Your task to perform on an android device: Open calendar and show me the third week of next month Image 0: 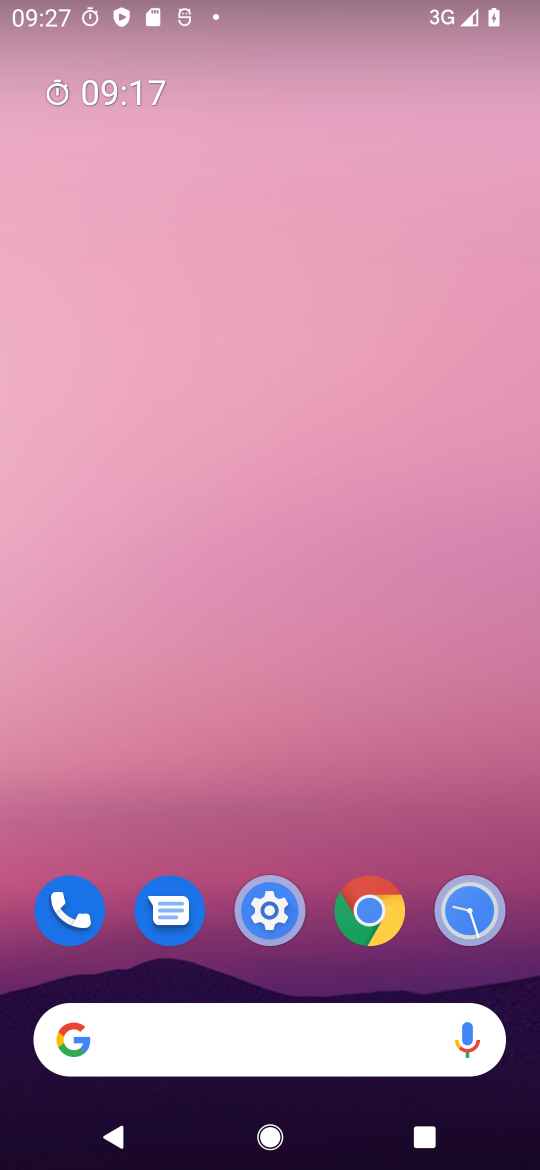
Step 0: drag from (289, 1056) to (465, 45)
Your task to perform on an android device: Open calendar and show me the third week of next month Image 1: 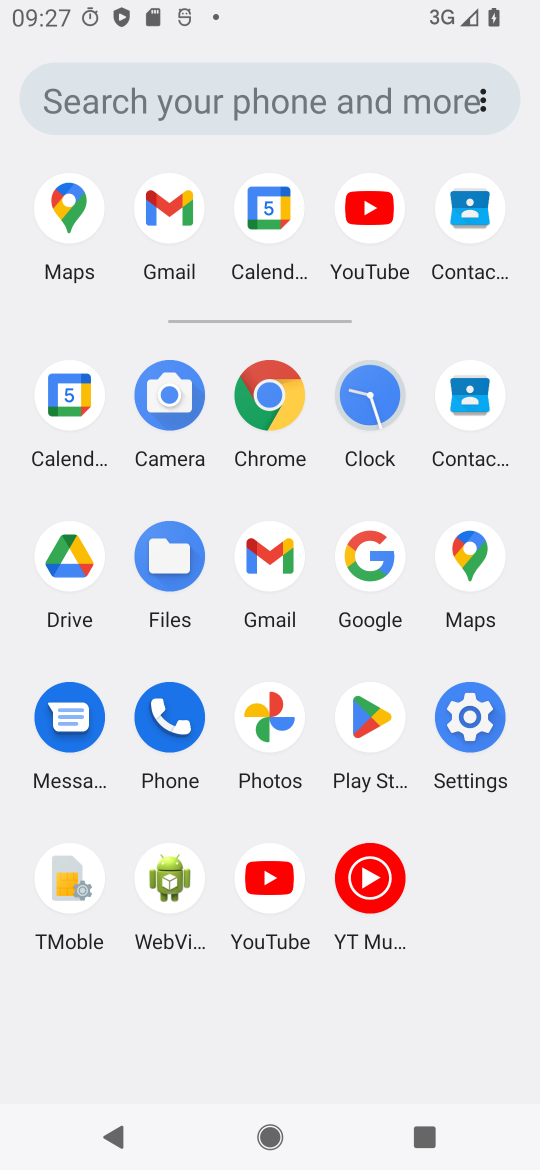
Step 1: click (64, 397)
Your task to perform on an android device: Open calendar and show me the third week of next month Image 2: 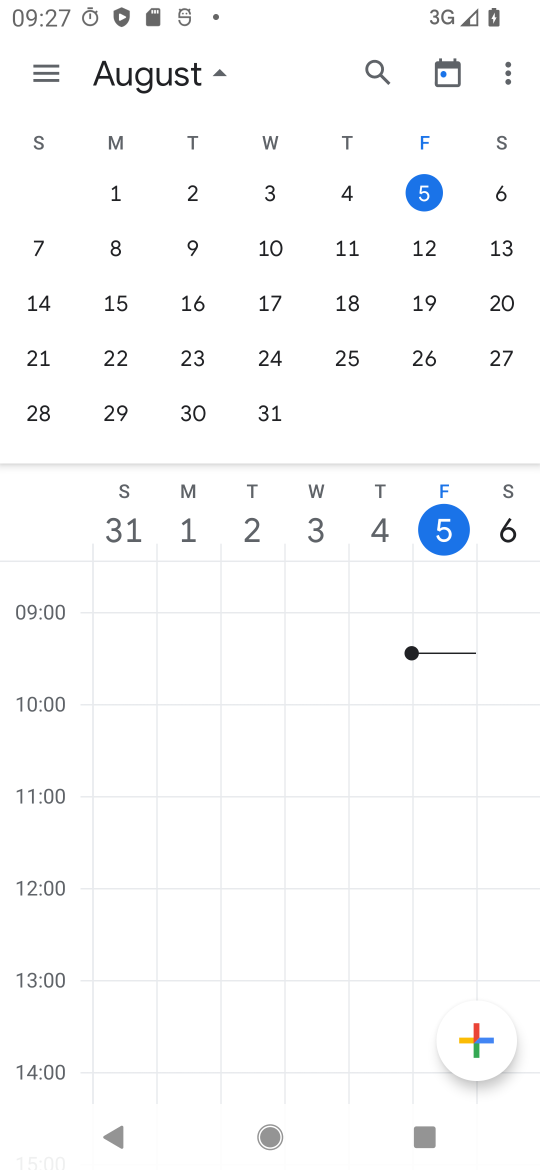
Step 2: drag from (504, 284) to (3, 278)
Your task to perform on an android device: Open calendar and show me the third week of next month Image 3: 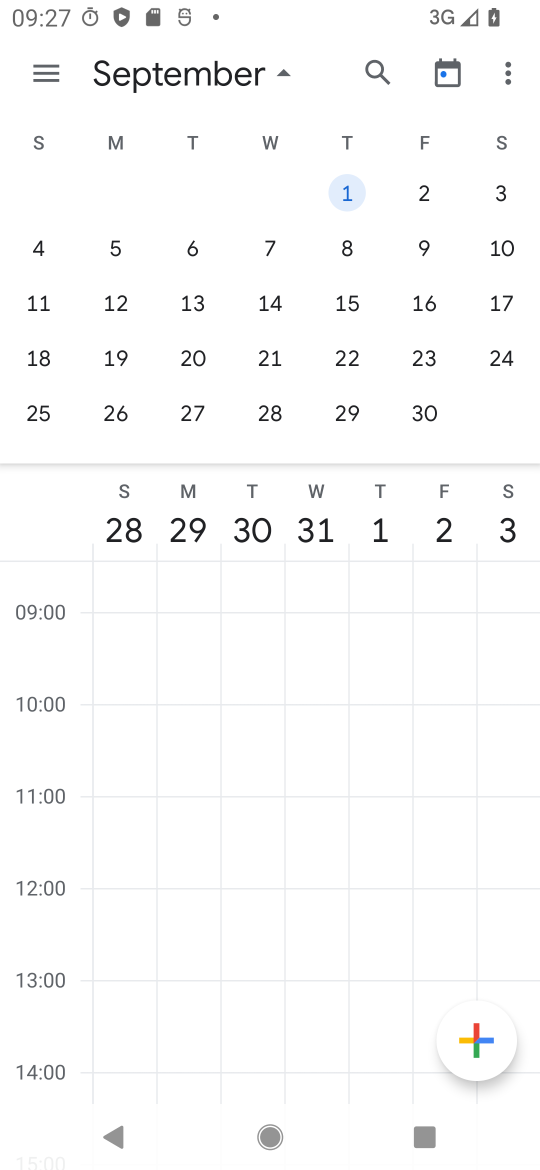
Step 3: click (268, 307)
Your task to perform on an android device: Open calendar and show me the third week of next month Image 4: 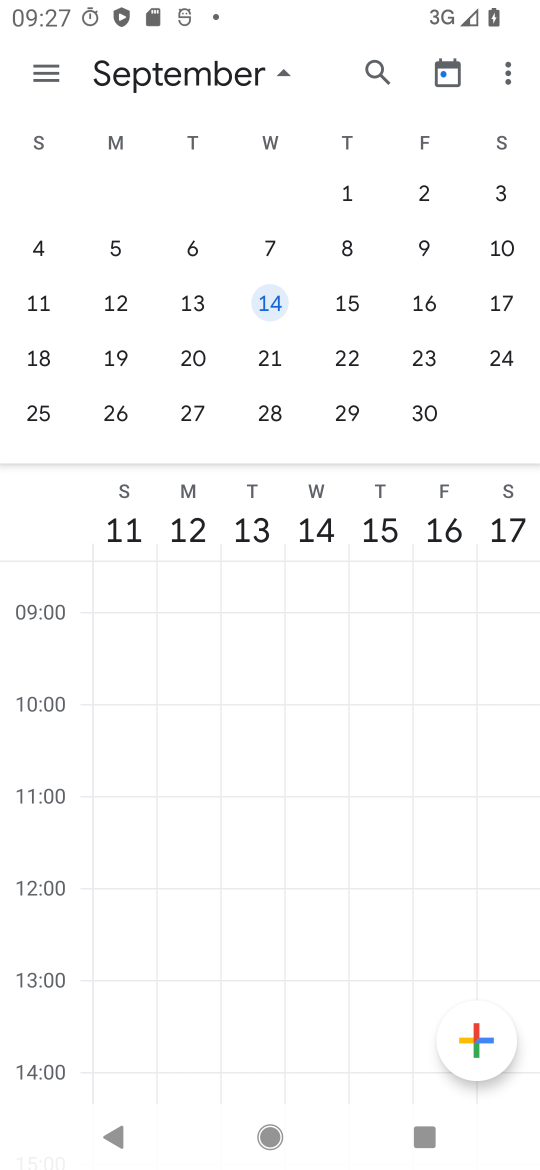
Step 4: task complete